Your task to perform on an android device: Show me the alarms in the clock app Image 0: 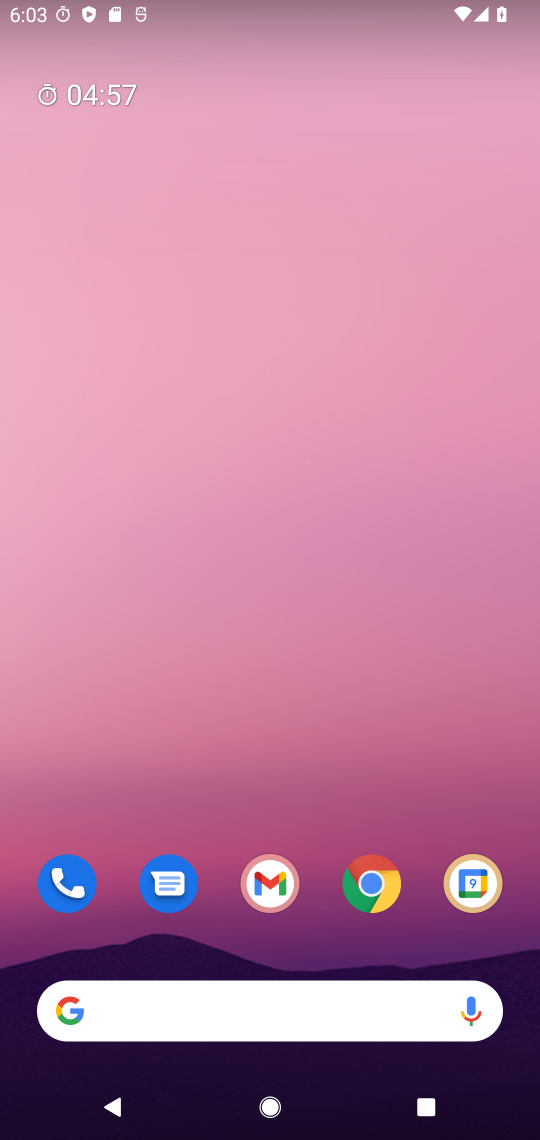
Step 0: drag from (296, 736) to (242, 38)
Your task to perform on an android device: Show me the alarms in the clock app Image 1: 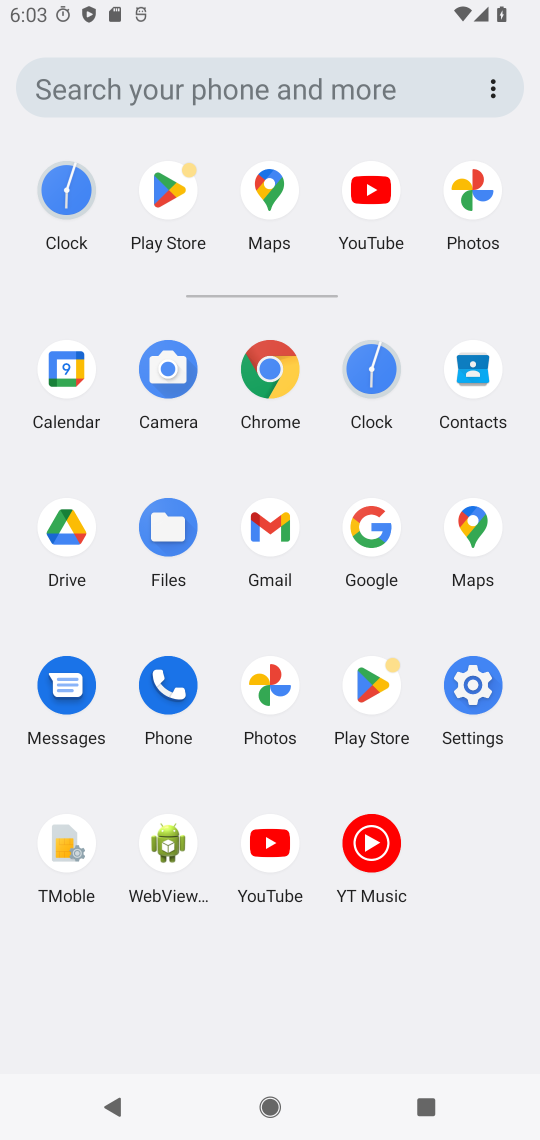
Step 1: click (356, 377)
Your task to perform on an android device: Show me the alarms in the clock app Image 2: 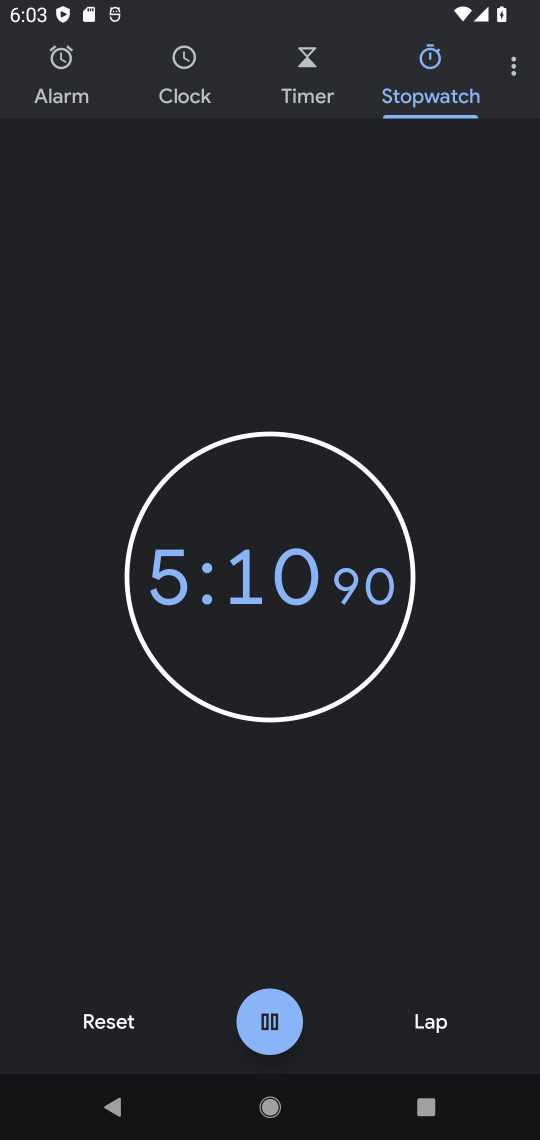
Step 2: click (34, 91)
Your task to perform on an android device: Show me the alarms in the clock app Image 3: 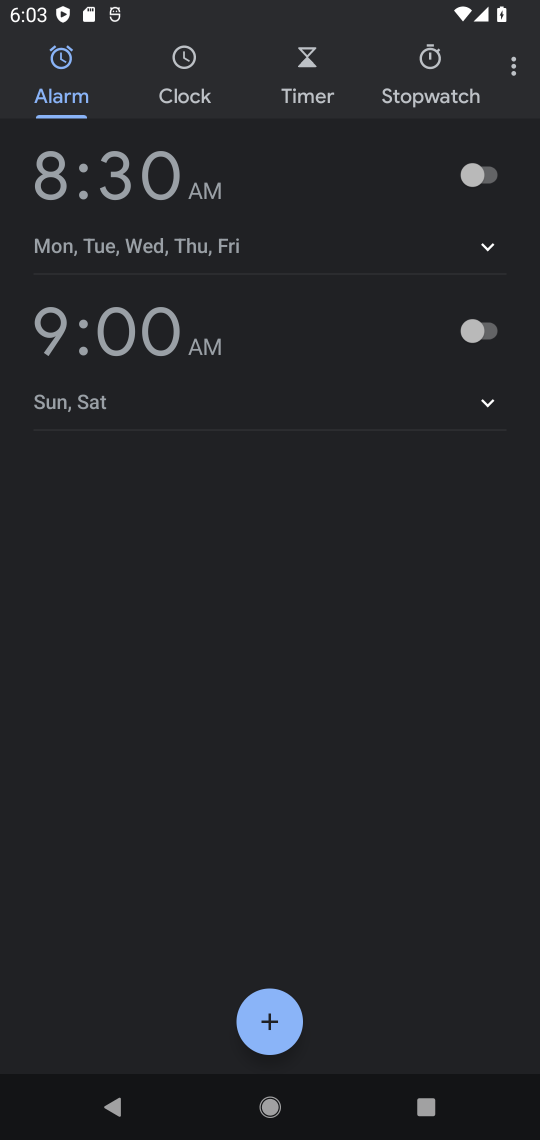
Step 3: task complete